Your task to perform on an android device: turn on showing notifications on the lock screen Image 0: 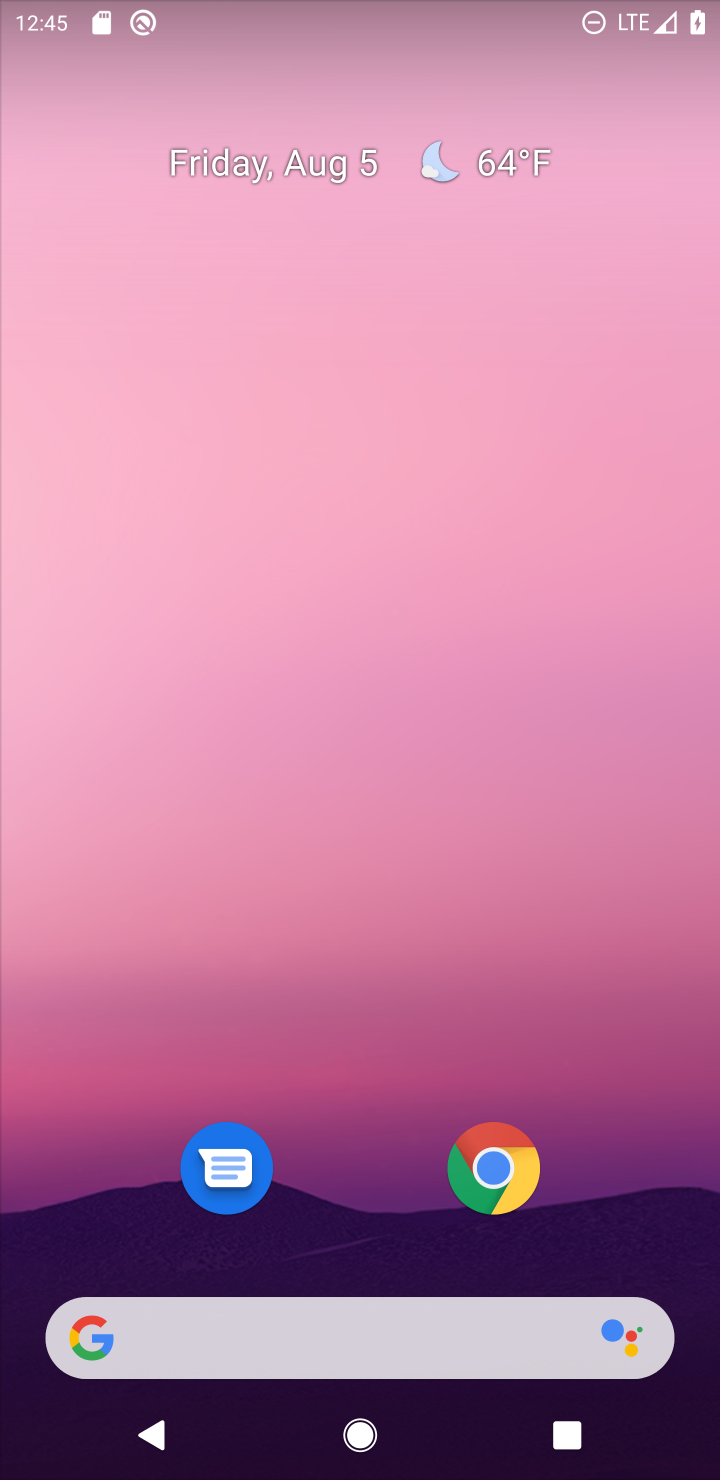
Step 0: drag from (708, 1217) to (412, 1)
Your task to perform on an android device: turn on showing notifications on the lock screen Image 1: 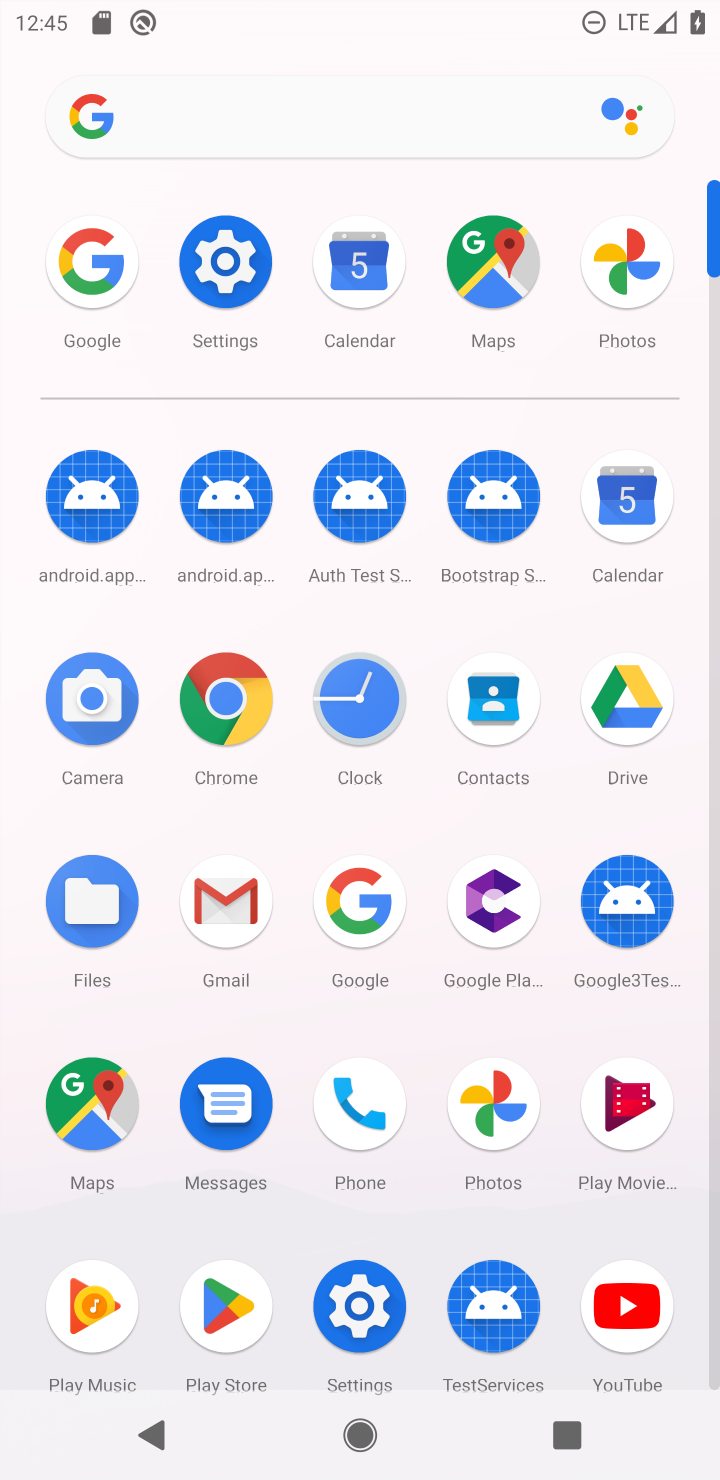
Step 1: click (387, 1303)
Your task to perform on an android device: turn on showing notifications on the lock screen Image 2: 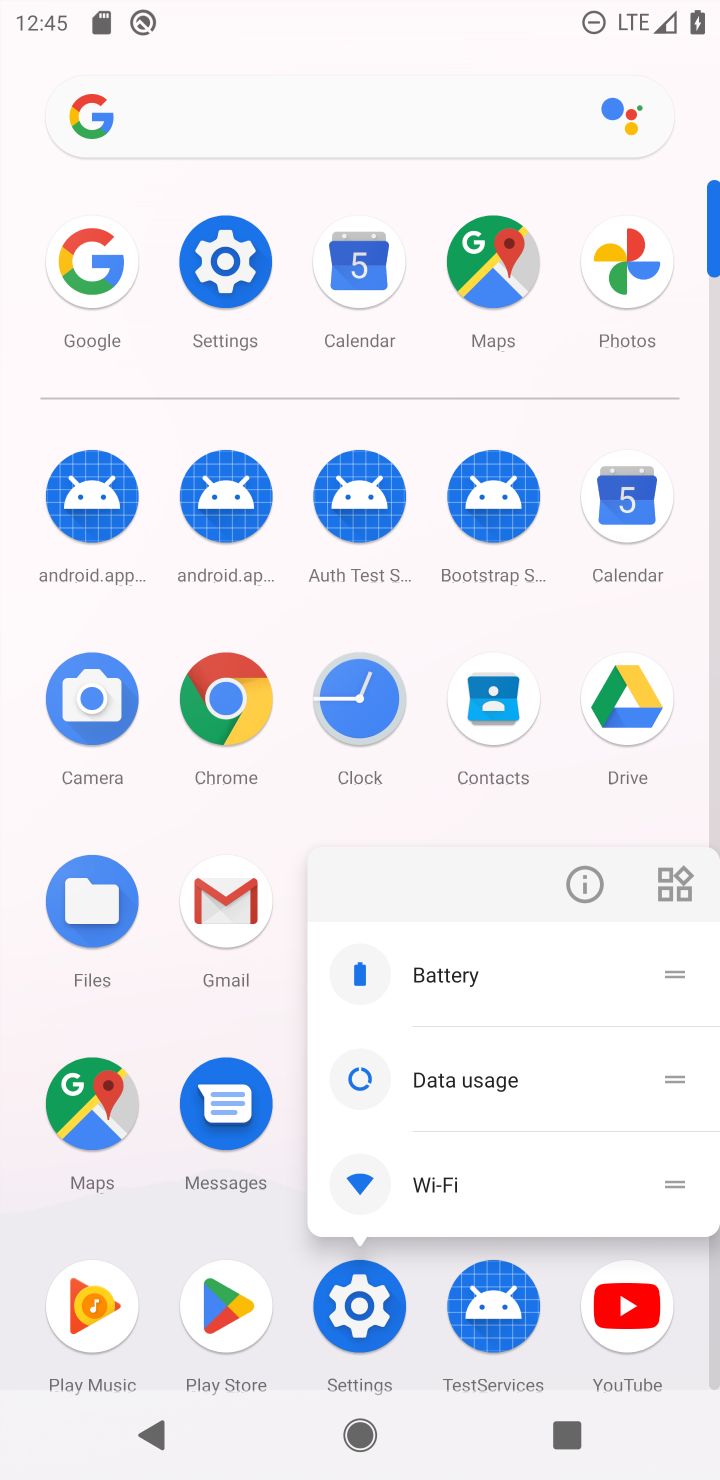
Step 2: click (387, 1303)
Your task to perform on an android device: turn on showing notifications on the lock screen Image 3: 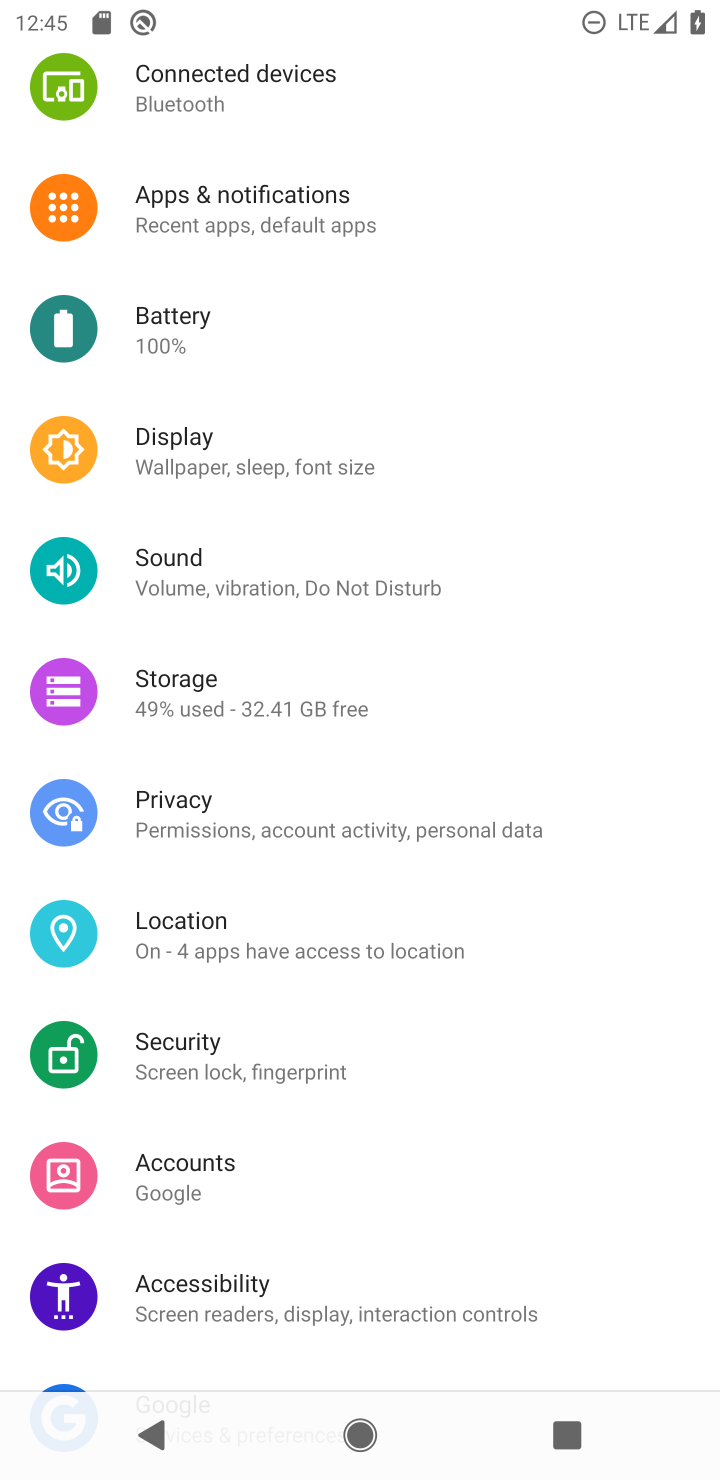
Step 3: click (268, 232)
Your task to perform on an android device: turn on showing notifications on the lock screen Image 4: 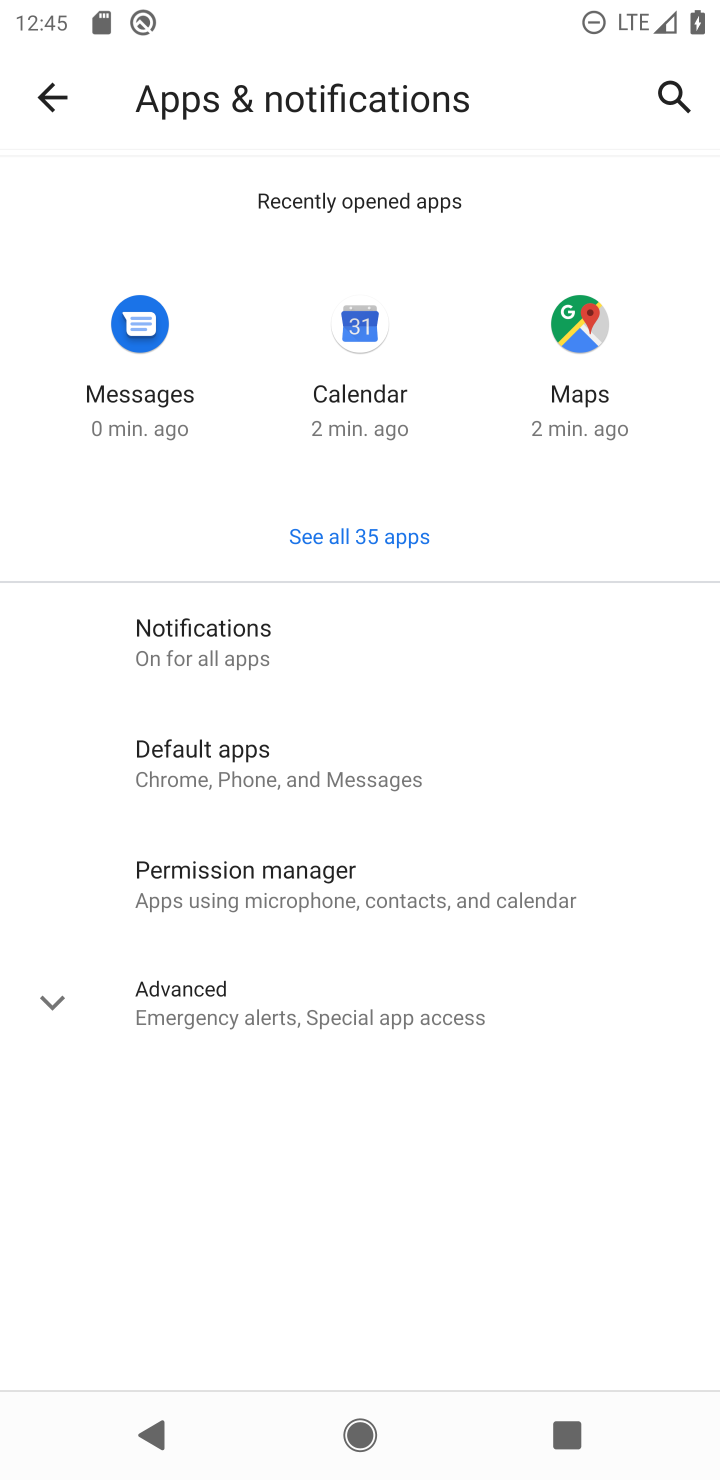
Step 4: click (296, 644)
Your task to perform on an android device: turn on showing notifications on the lock screen Image 5: 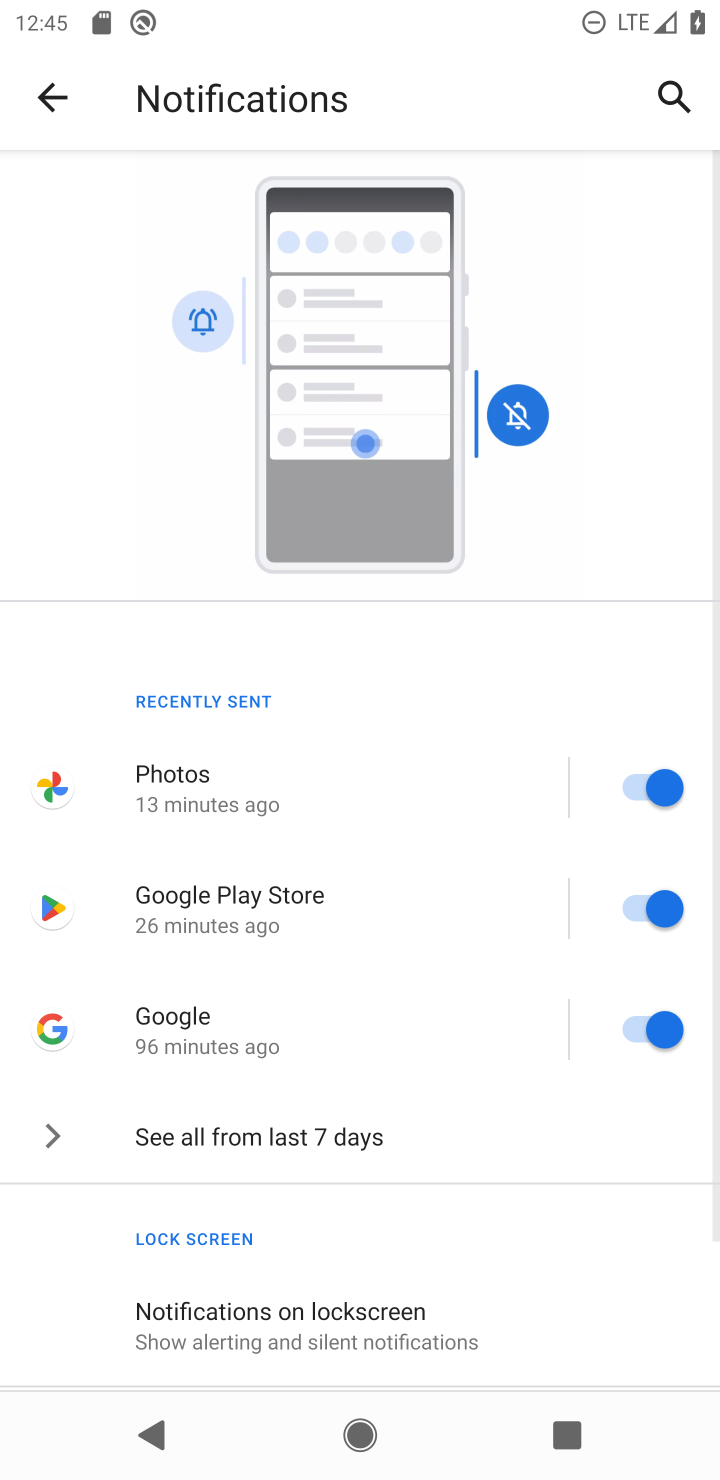
Step 5: click (384, 1324)
Your task to perform on an android device: turn on showing notifications on the lock screen Image 6: 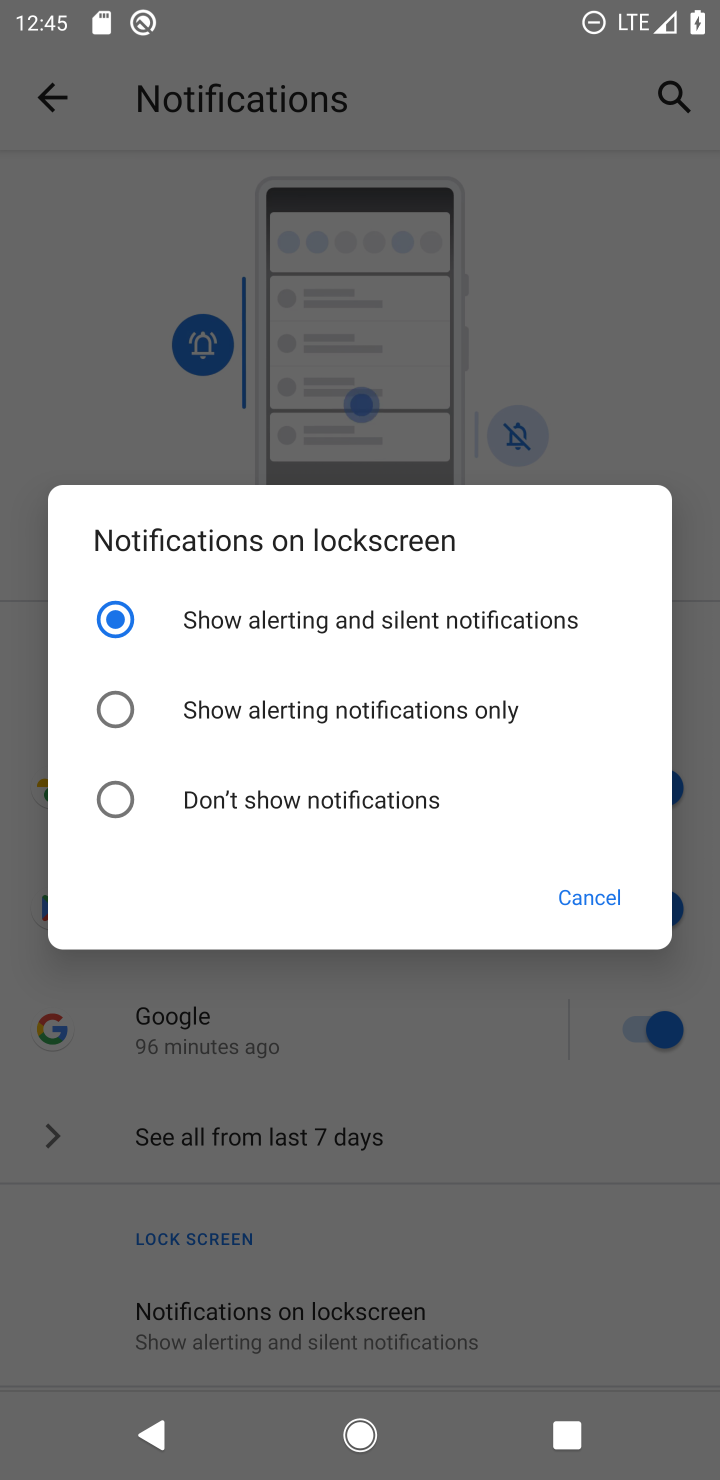
Step 6: task complete